Your task to perform on an android device: Open Youtube and go to the subscriptions tab Image 0: 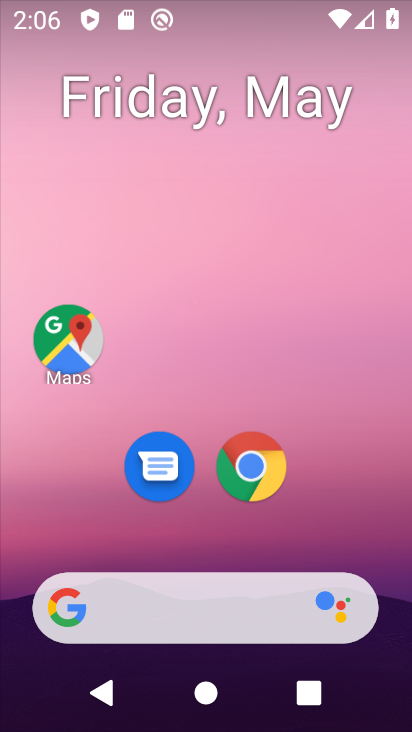
Step 0: drag from (392, 506) to (351, 219)
Your task to perform on an android device: Open Youtube and go to the subscriptions tab Image 1: 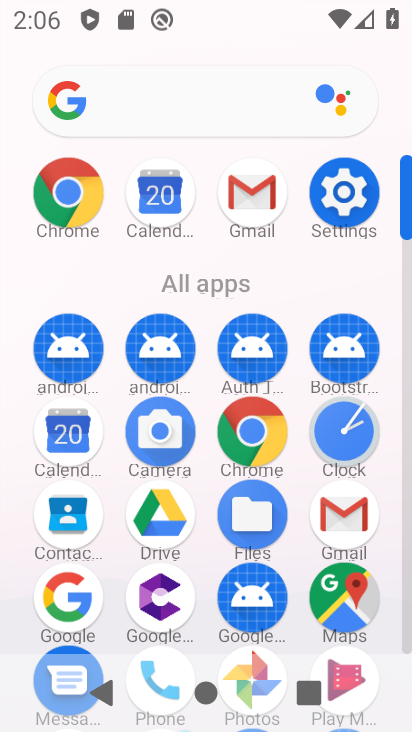
Step 1: click (407, 506)
Your task to perform on an android device: Open Youtube and go to the subscriptions tab Image 2: 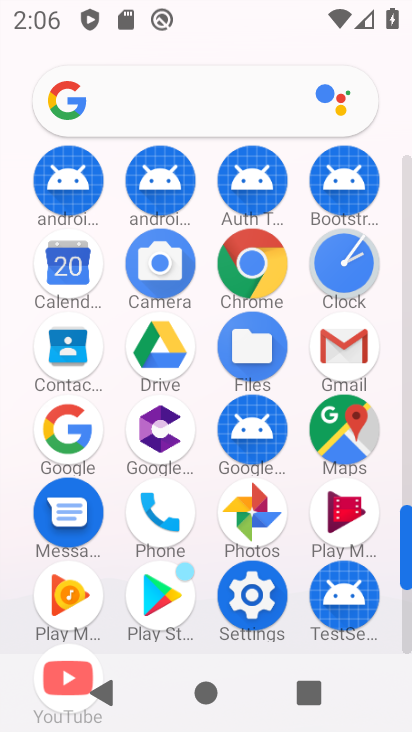
Step 2: click (407, 617)
Your task to perform on an android device: Open Youtube and go to the subscriptions tab Image 3: 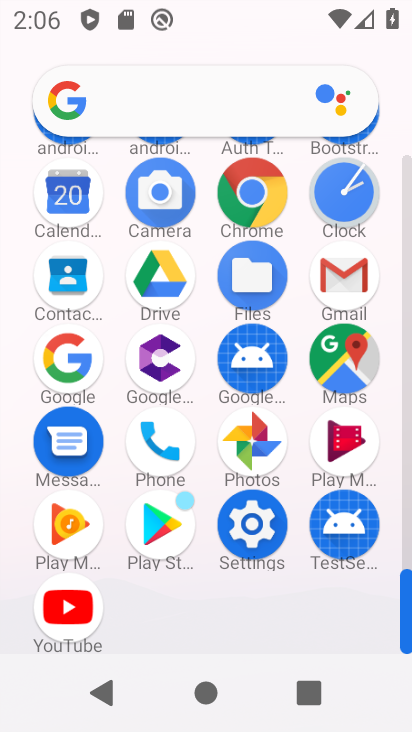
Step 3: click (50, 618)
Your task to perform on an android device: Open Youtube and go to the subscriptions tab Image 4: 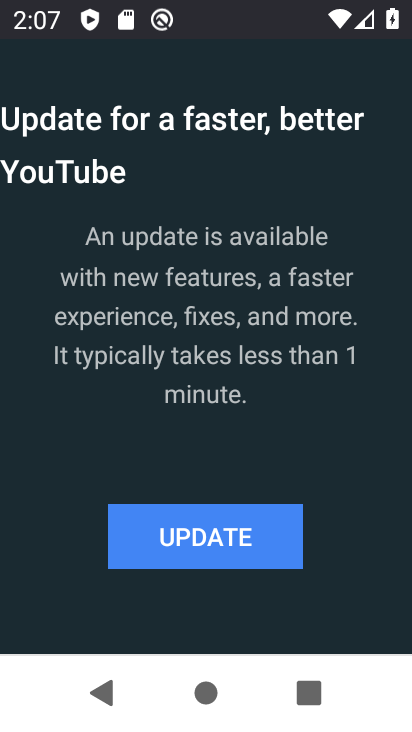
Step 4: press back button
Your task to perform on an android device: Open Youtube and go to the subscriptions tab Image 5: 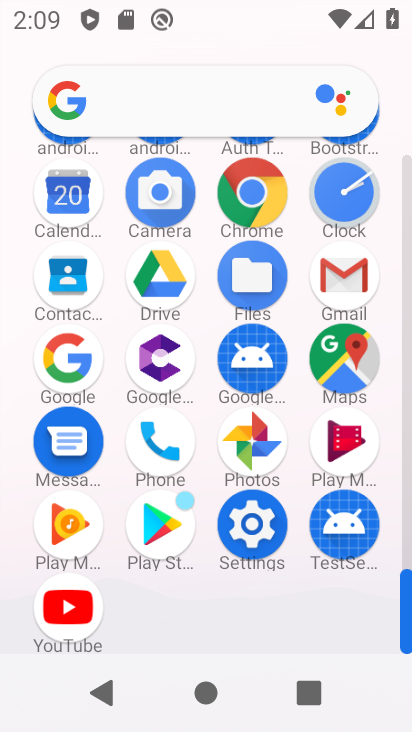
Step 5: click (60, 634)
Your task to perform on an android device: Open Youtube and go to the subscriptions tab Image 6: 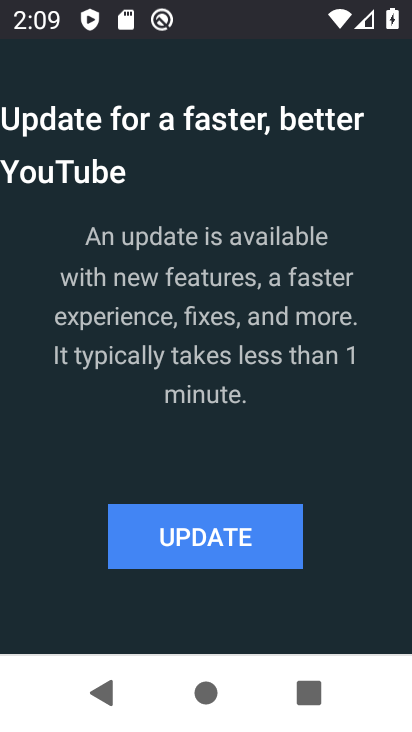
Step 6: click (223, 535)
Your task to perform on an android device: Open Youtube and go to the subscriptions tab Image 7: 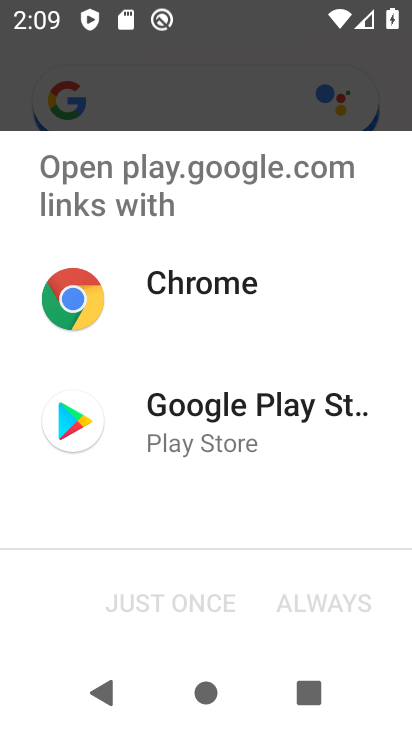
Step 7: click (168, 464)
Your task to perform on an android device: Open Youtube and go to the subscriptions tab Image 8: 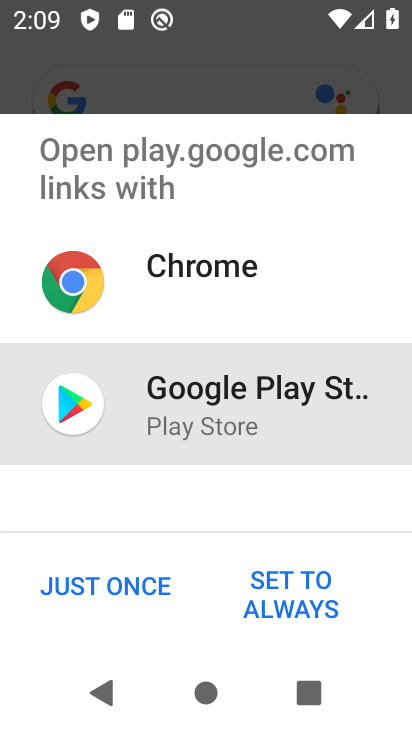
Step 8: click (153, 586)
Your task to perform on an android device: Open Youtube and go to the subscriptions tab Image 9: 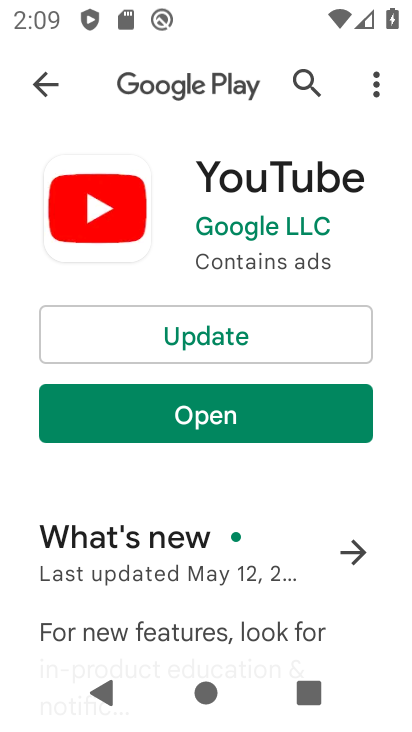
Step 9: click (323, 343)
Your task to perform on an android device: Open Youtube and go to the subscriptions tab Image 10: 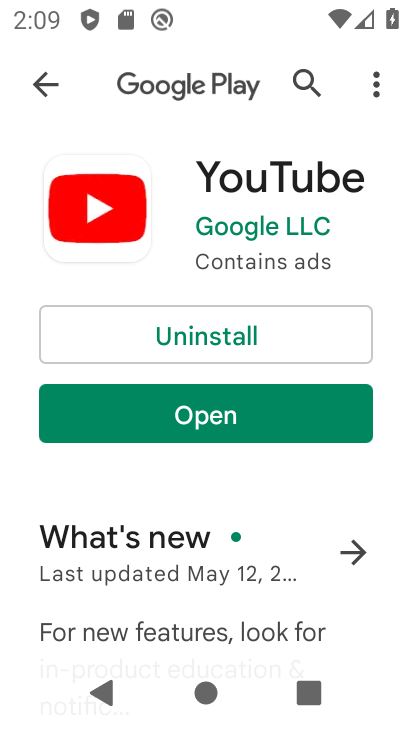
Step 10: click (189, 410)
Your task to perform on an android device: Open Youtube and go to the subscriptions tab Image 11: 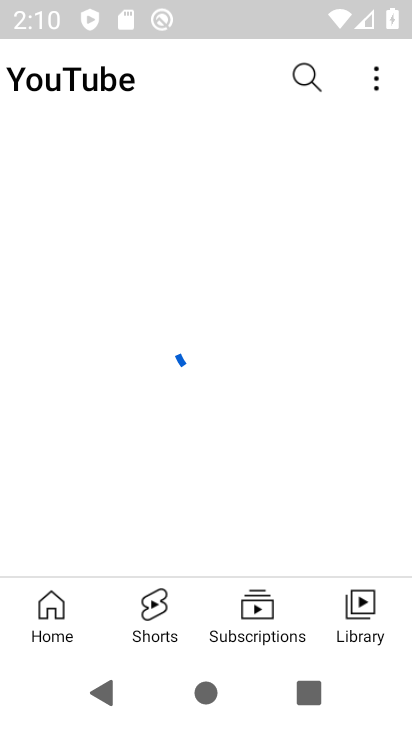
Step 11: task complete